Your task to perform on an android device: toggle sleep mode Image 0: 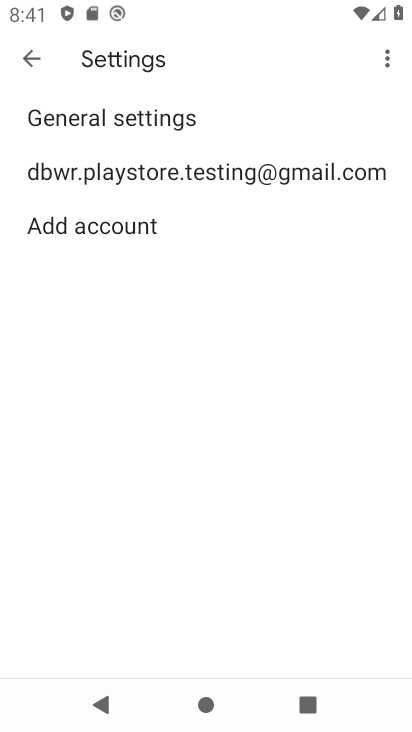
Step 0: drag from (340, 3) to (211, 702)
Your task to perform on an android device: toggle sleep mode Image 1: 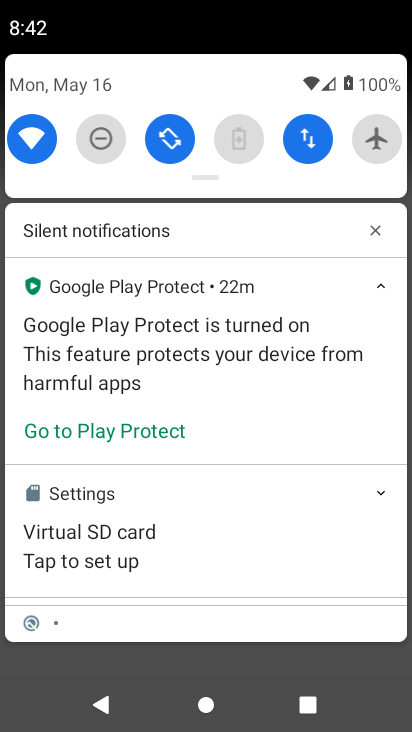
Step 1: drag from (214, 172) to (155, 623)
Your task to perform on an android device: toggle sleep mode Image 2: 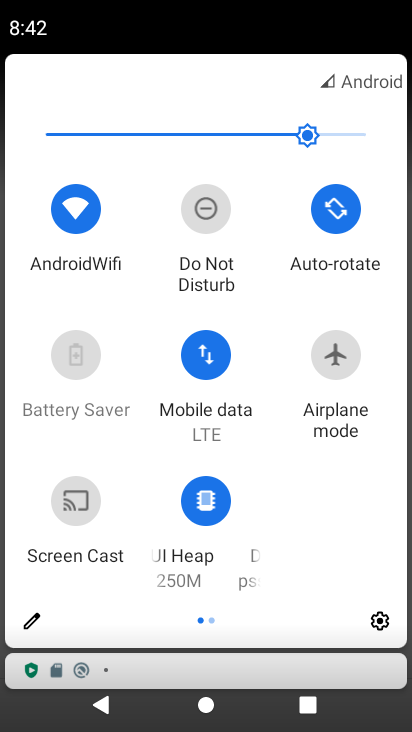
Step 2: drag from (299, 526) to (2, 630)
Your task to perform on an android device: toggle sleep mode Image 3: 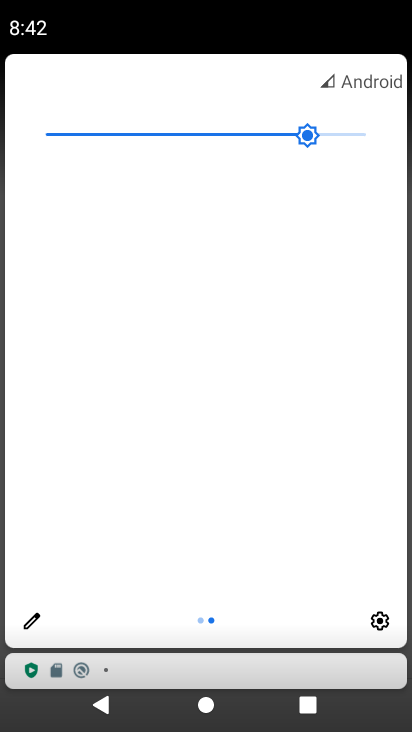
Step 3: click (37, 621)
Your task to perform on an android device: toggle sleep mode Image 4: 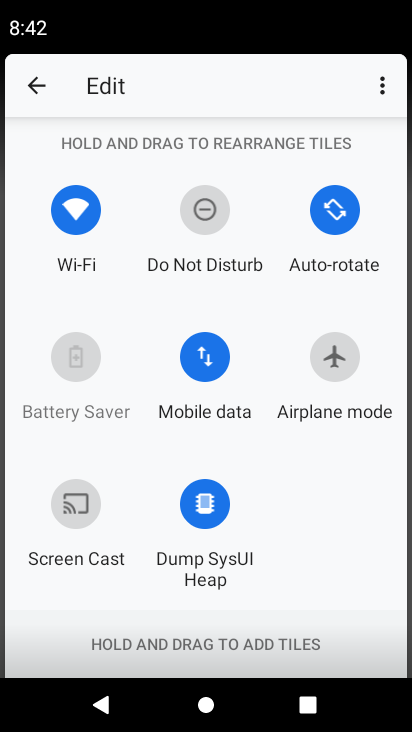
Step 4: task complete